Your task to perform on an android device: Check the weather Image 0: 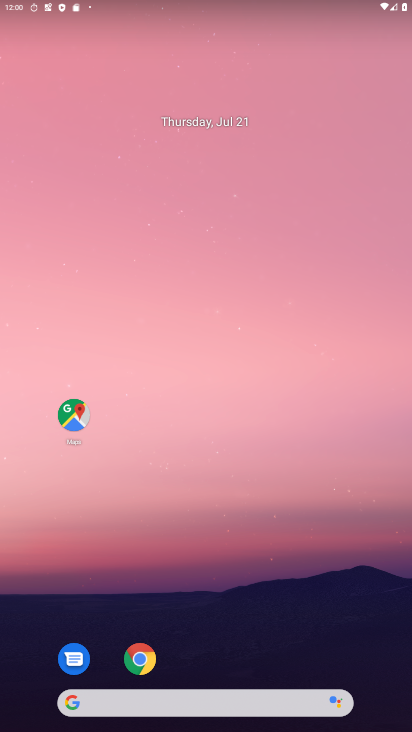
Step 0: drag from (260, 592) to (243, 90)
Your task to perform on an android device: Check the weather Image 1: 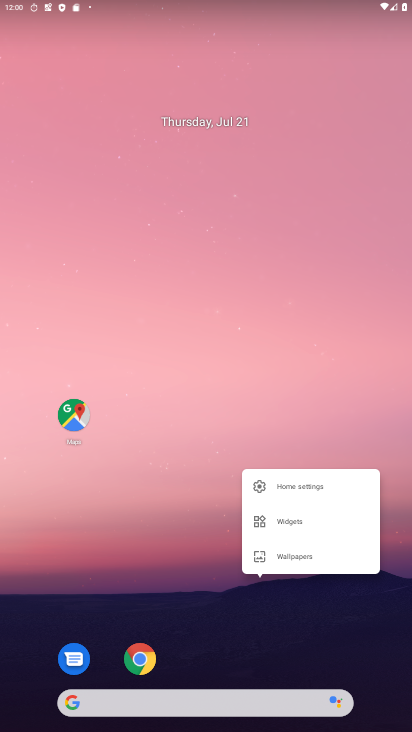
Step 1: click (205, 298)
Your task to perform on an android device: Check the weather Image 2: 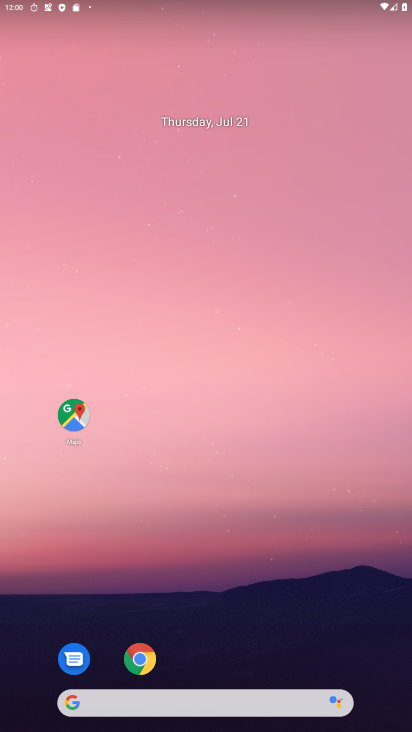
Step 2: drag from (243, 622) to (224, 21)
Your task to perform on an android device: Check the weather Image 3: 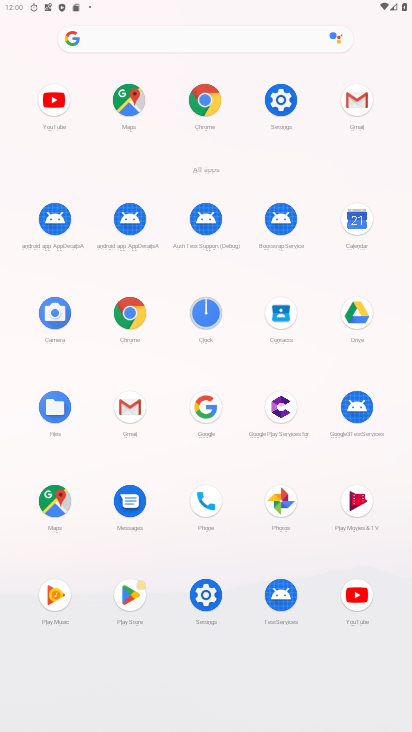
Step 3: click (202, 106)
Your task to perform on an android device: Check the weather Image 4: 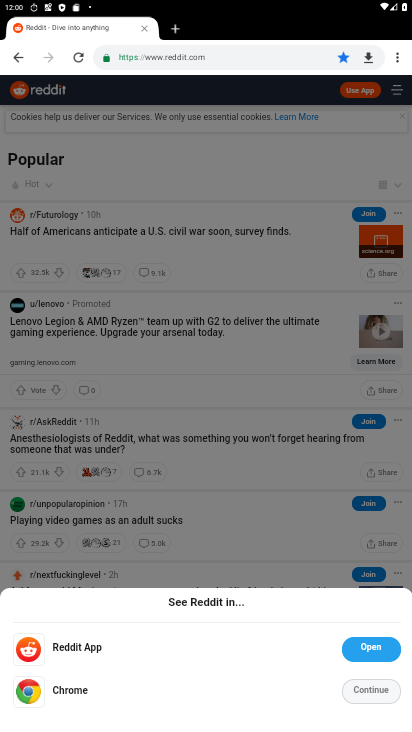
Step 4: click (253, 48)
Your task to perform on an android device: Check the weather Image 5: 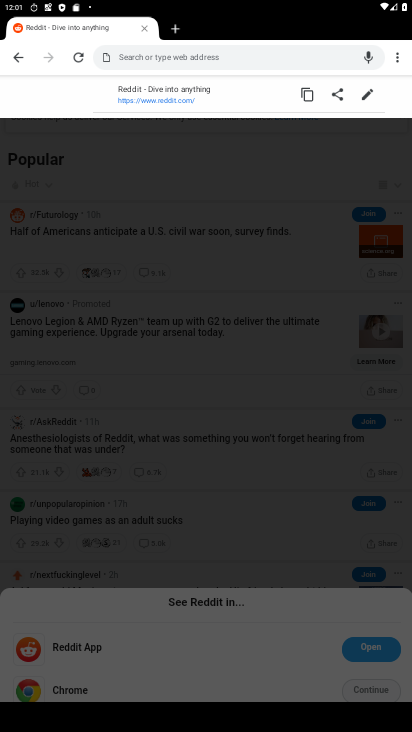
Step 5: type "weather"
Your task to perform on an android device: Check the weather Image 6: 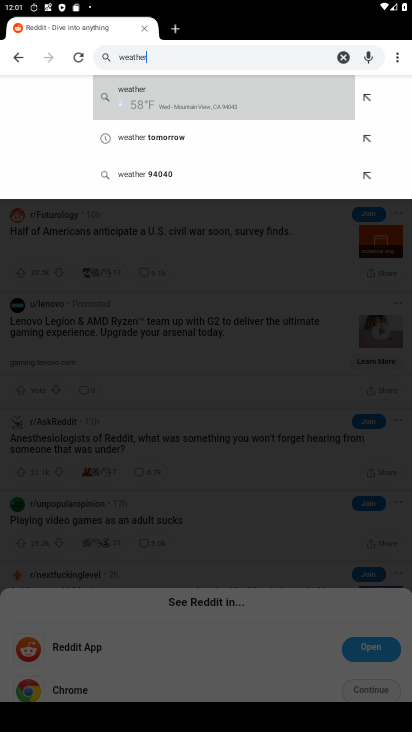
Step 6: click (249, 74)
Your task to perform on an android device: Check the weather Image 7: 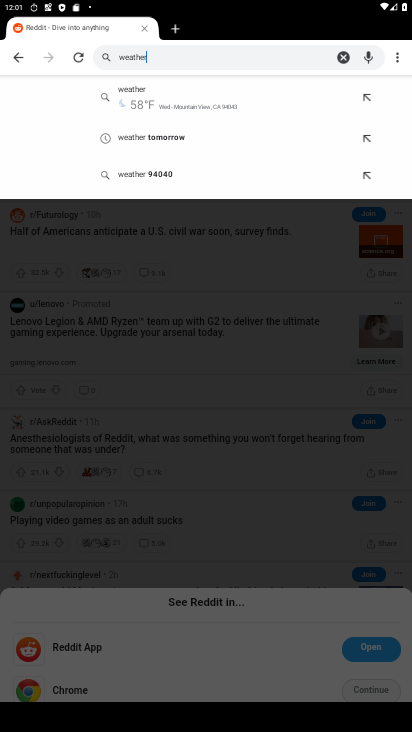
Step 7: click (124, 96)
Your task to perform on an android device: Check the weather Image 8: 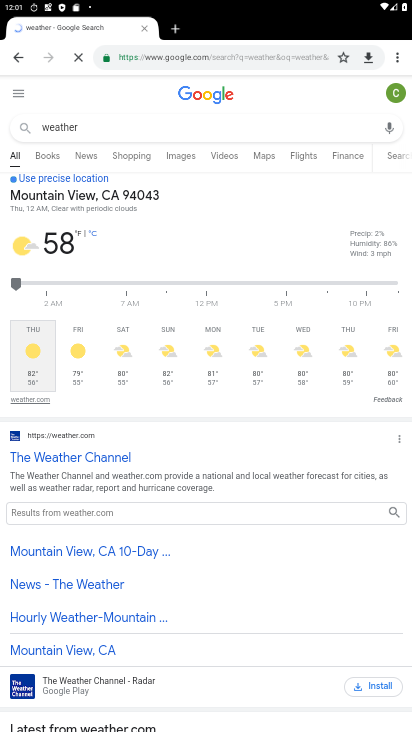
Step 8: task complete